Your task to perform on an android device: toggle notifications settings in the gmail app Image 0: 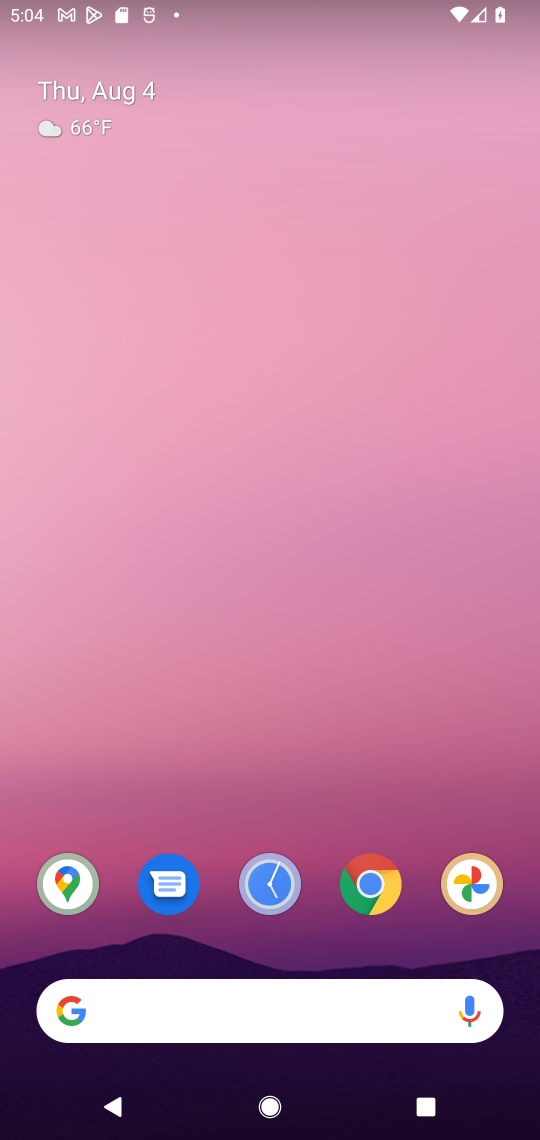
Step 0: drag from (296, 524) to (242, 54)
Your task to perform on an android device: toggle notifications settings in the gmail app Image 1: 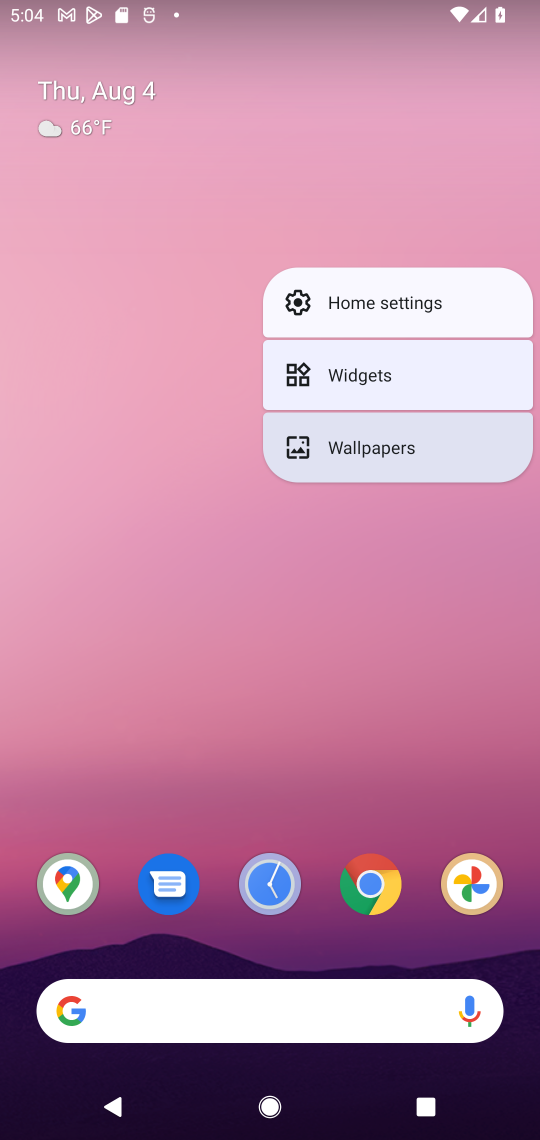
Step 1: click (252, 598)
Your task to perform on an android device: toggle notifications settings in the gmail app Image 2: 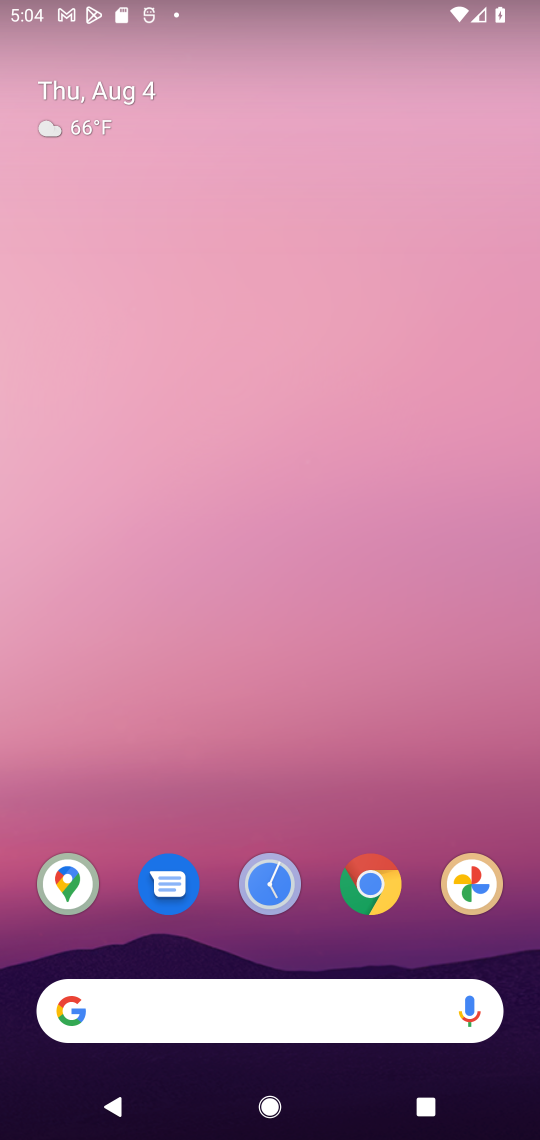
Step 2: drag from (323, 968) to (323, 103)
Your task to perform on an android device: toggle notifications settings in the gmail app Image 3: 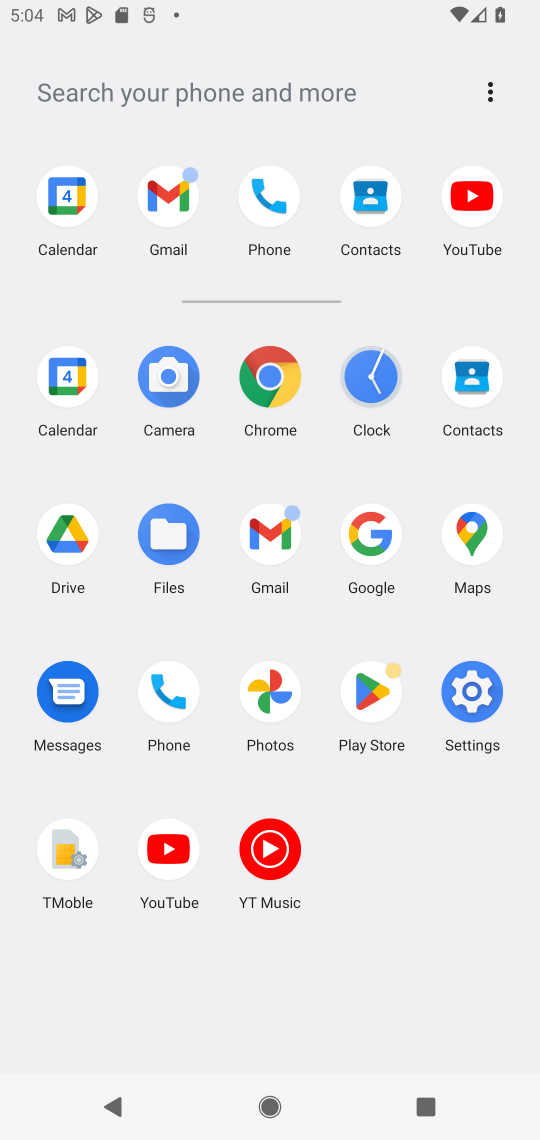
Step 3: click (288, 546)
Your task to perform on an android device: toggle notifications settings in the gmail app Image 4: 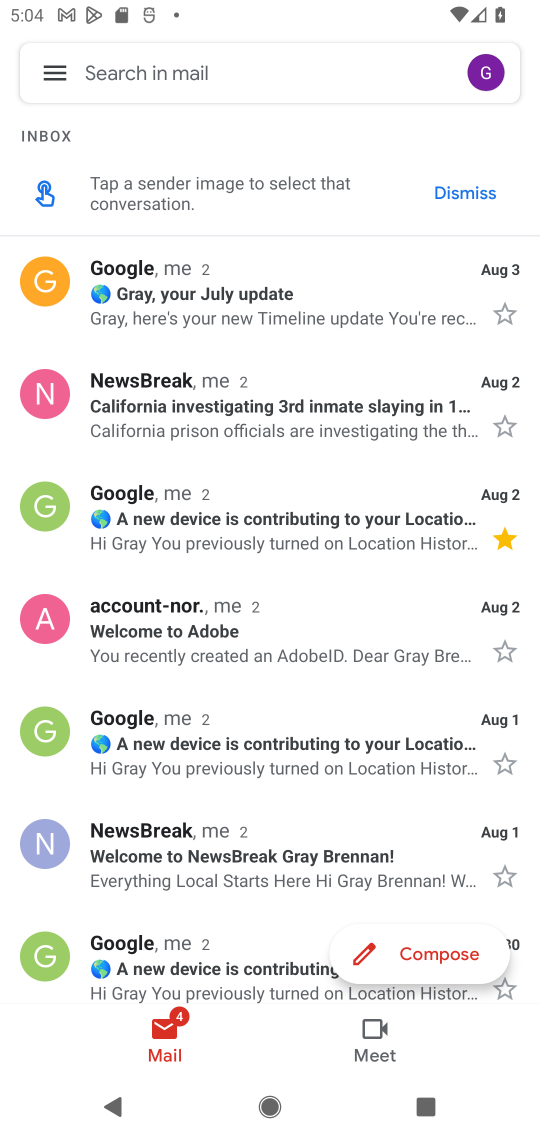
Step 4: task complete